Your task to perform on an android device: open app "PlayWell" Image 0: 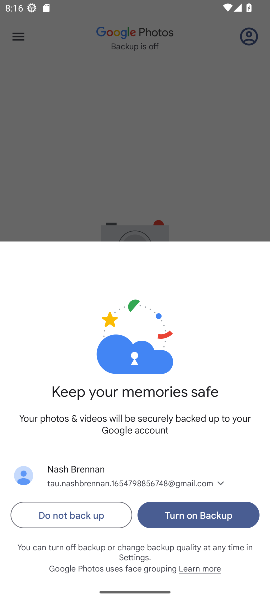
Step 0: press home button
Your task to perform on an android device: open app "PlayWell" Image 1: 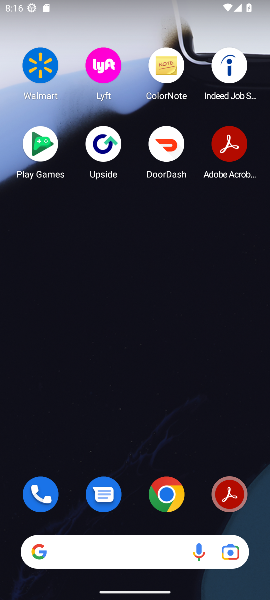
Step 1: drag from (199, 350) to (199, 203)
Your task to perform on an android device: open app "PlayWell" Image 2: 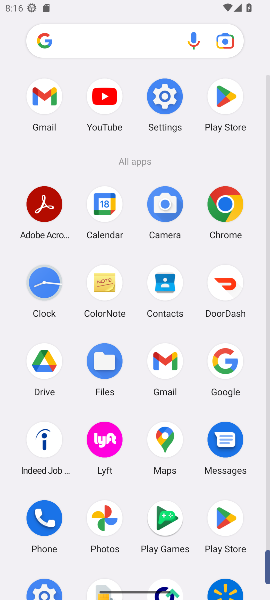
Step 2: click (228, 519)
Your task to perform on an android device: open app "PlayWell" Image 3: 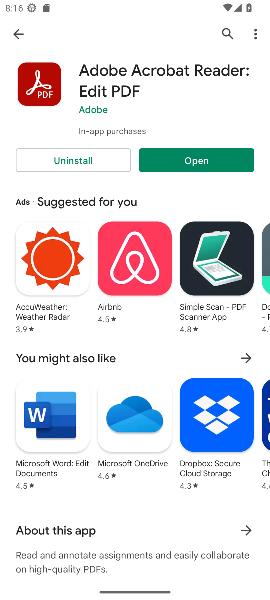
Step 3: click (227, 32)
Your task to perform on an android device: open app "PlayWell" Image 4: 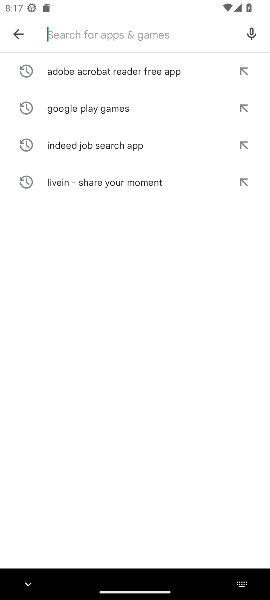
Step 4: type "PlayWell"
Your task to perform on an android device: open app "PlayWell" Image 5: 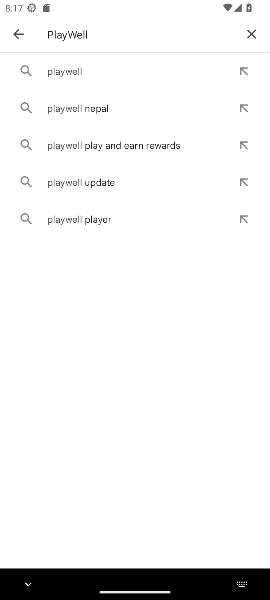
Step 5: click (68, 74)
Your task to perform on an android device: open app "PlayWell" Image 6: 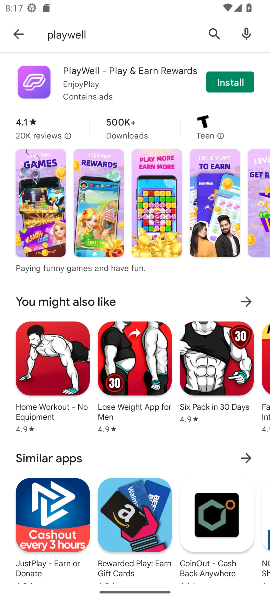
Step 6: task complete